Your task to perform on an android device: Search for seafood restaurants on Google Maps Image 0: 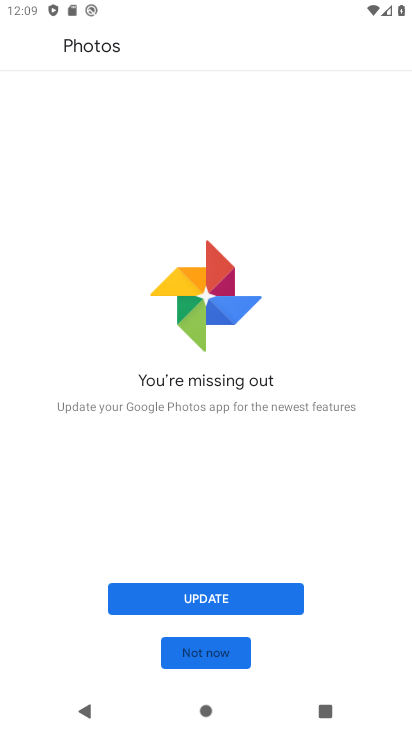
Step 0: press home button
Your task to perform on an android device: Search for seafood restaurants on Google Maps Image 1: 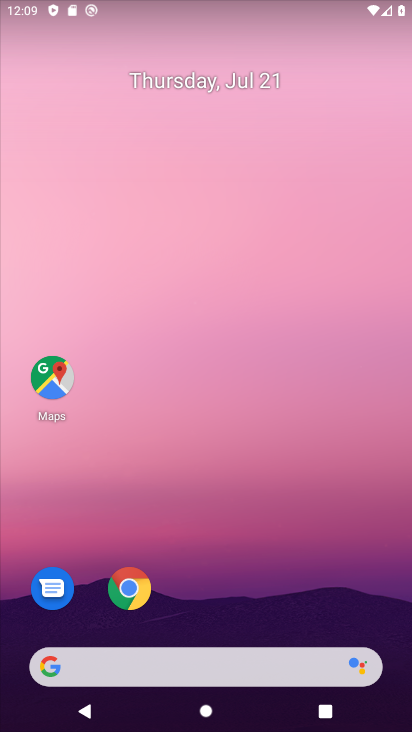
Step 1: click (62, 390)
Your task to perform on an android device: Search for seafood restaurants on Google Maps Image 2: 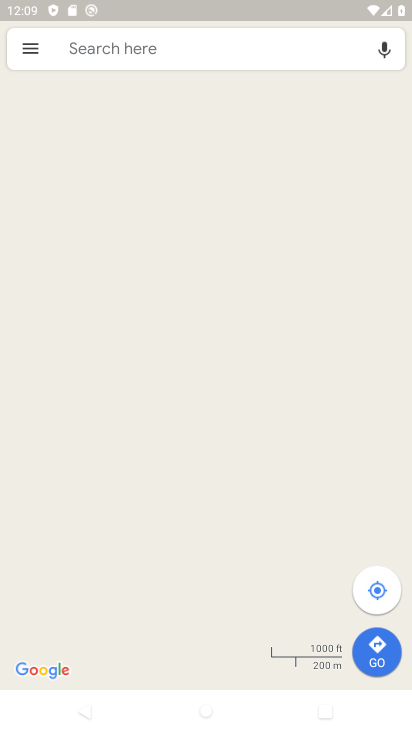
Step 2: click (150, 56)
Your task to perform on an android device: Search for seafood restaurants on Google Maps Image 3: 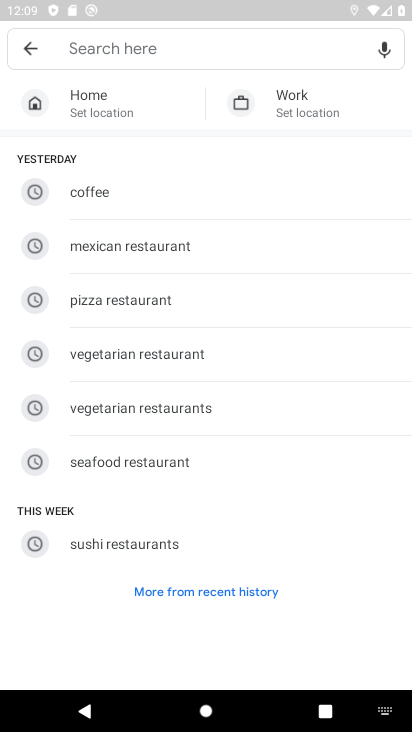
Step 3: type "seafood restaurants"
Your task to perform on an android device: Search for seafood restaurants on Google Maps Image 4: 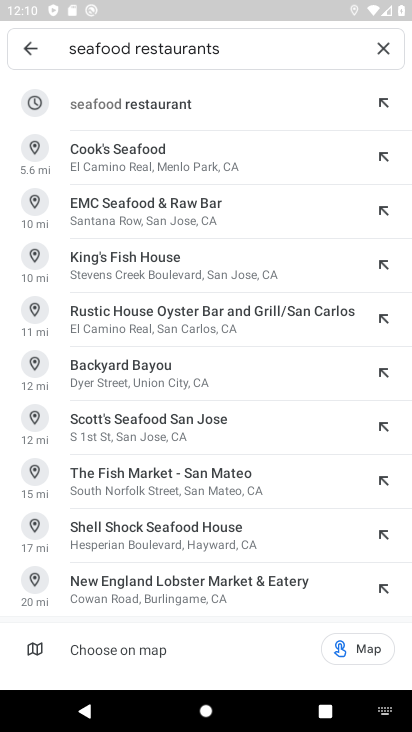
Step 4: click (174, 103)
Your task to perform on an android device: Search for seafood restaurants on Google Maps Image 5: 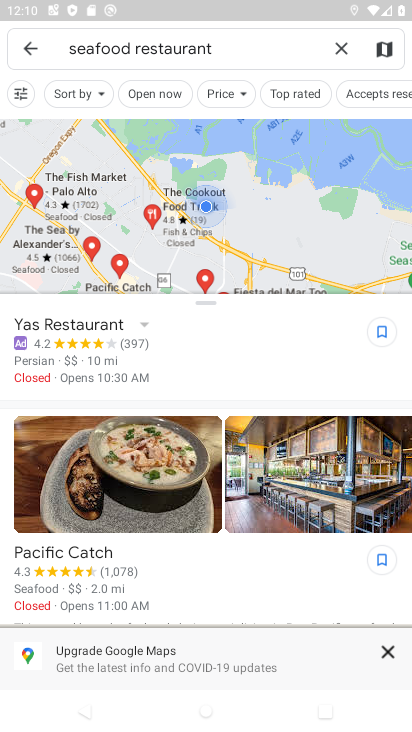
Step 5: task complete